Your task to perform on an android device: show emergency info Image 0: 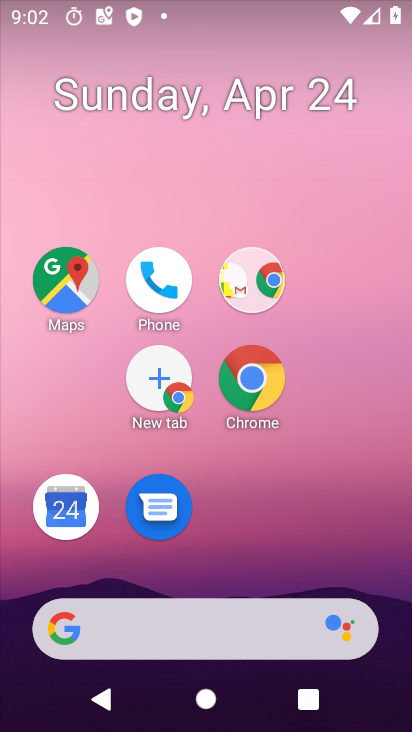
Step 0: drag from (267, 690) to (146, 48)
Your task to perform on an android device: show emergency info Image 1: 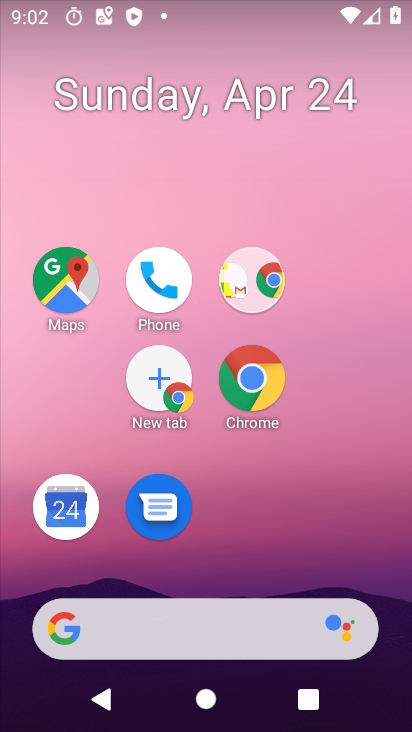
Step 1: drag from (246, 470) to (141, 90)
Your task to perform on an android device: show emergency info Image 2: 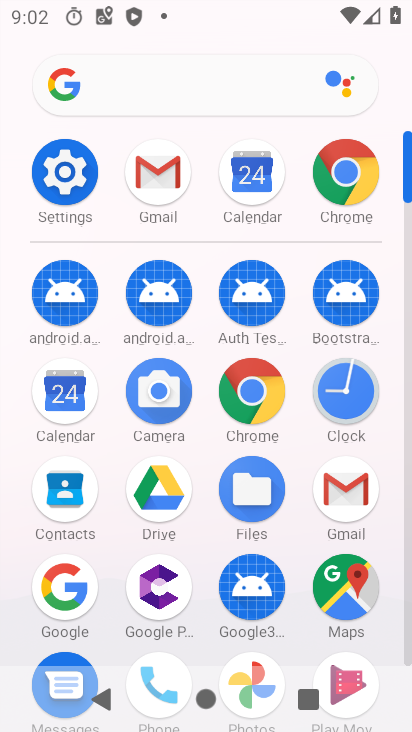
Step 2: click (58, 171)
Your task to perform on an android device: show emergency info Image 3: 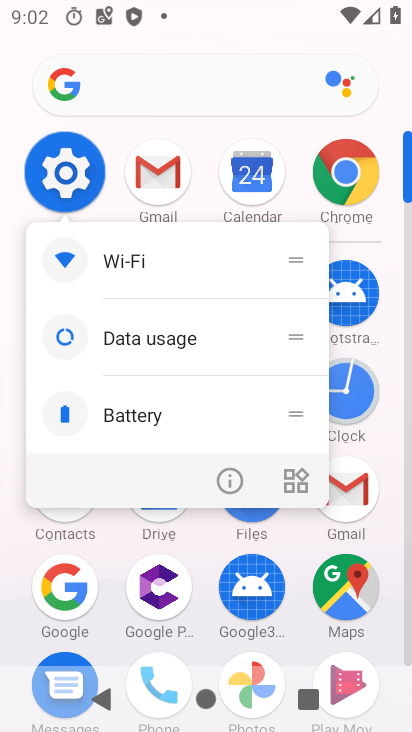
Step 3: click (61, 172)
Your task to perform on an android device: show emergency info Image 4: 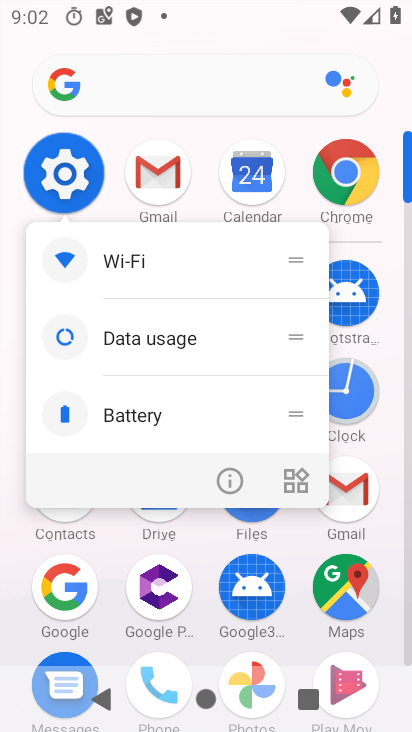
Step 4: click (60, 173)
Your task to perform on an android device: show emergency info Image 5: 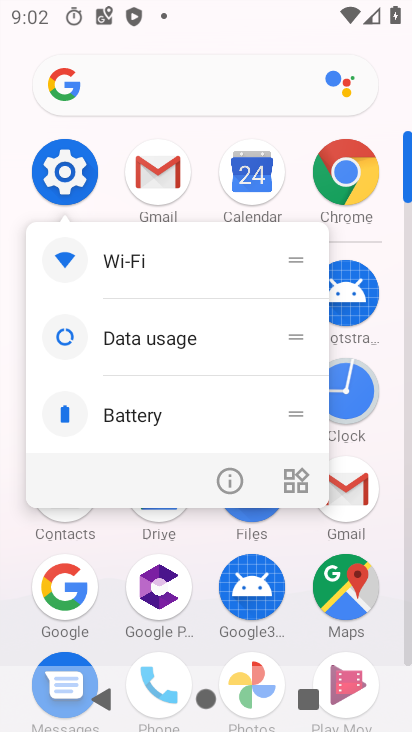
Step 5: click (62, 178)
Your task to perform on an android device: show emergency info Image 6: 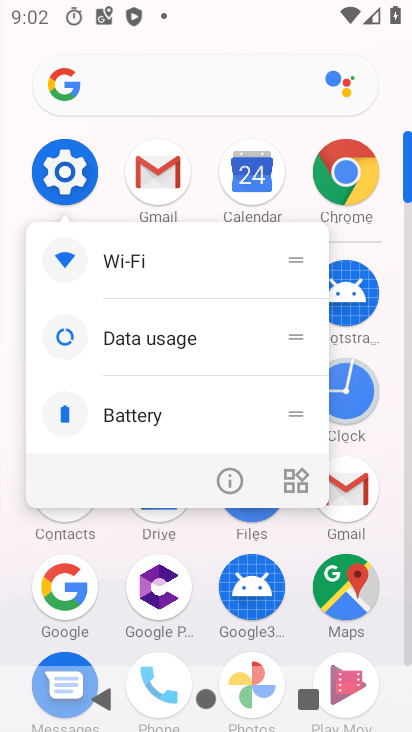
Step 6: click (62, 180)
Your task to perform on an android device: show emergency info Image 7: 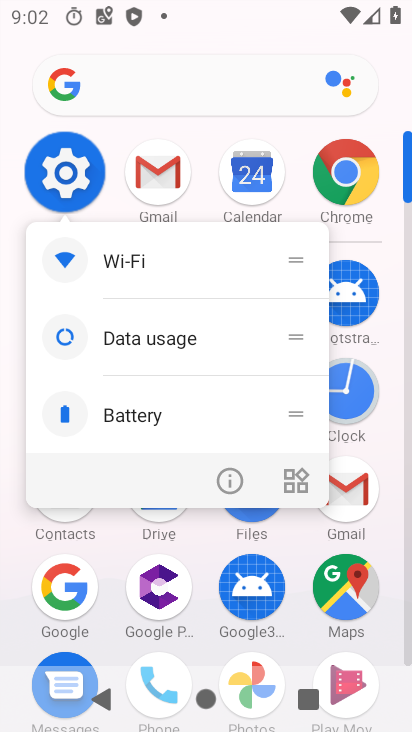
Step 7: click (62, 181)
Your task to perform on an android device: show emergency info Image 8: 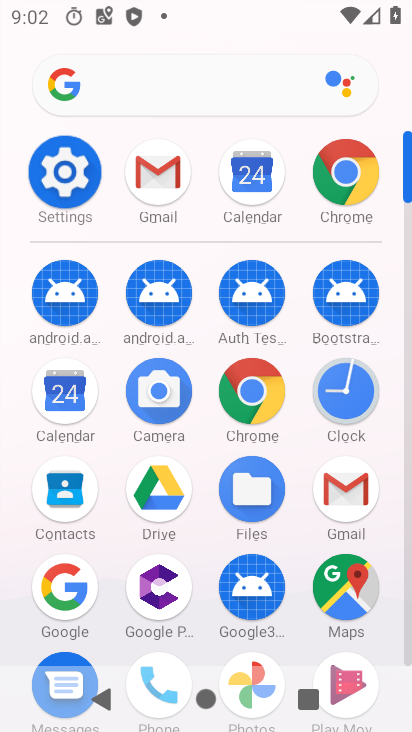
Step 8: click (62, 182)
Your task to perform on an android device: show emergency info Image 9: 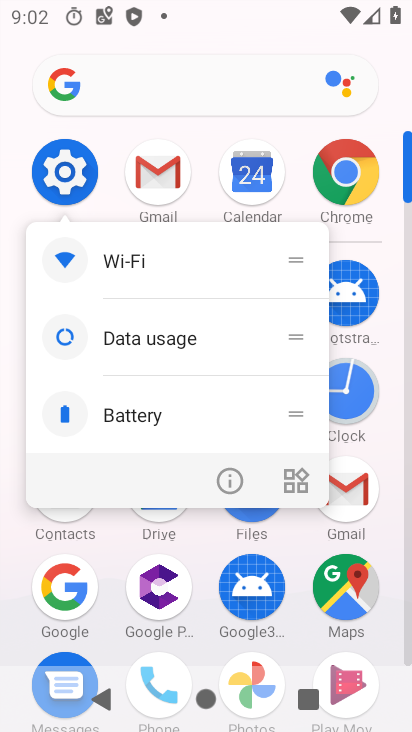
Step 9: click (62, 183)
Your task to perform on an android device: show emergency info Image 10: 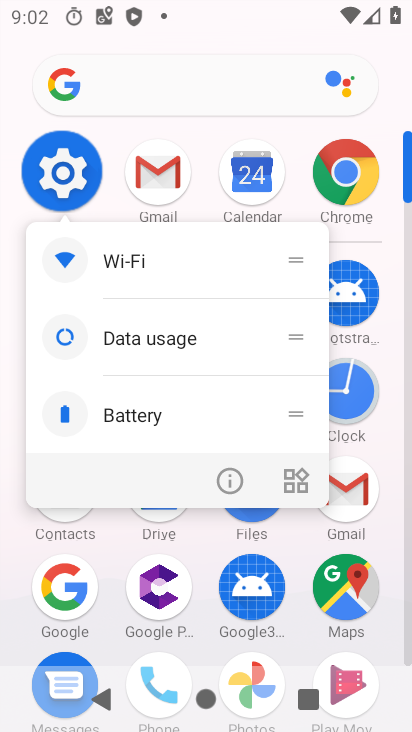
Step 10: click (59, 181)
Your task to perform on an android device: show emergency info Image 11: 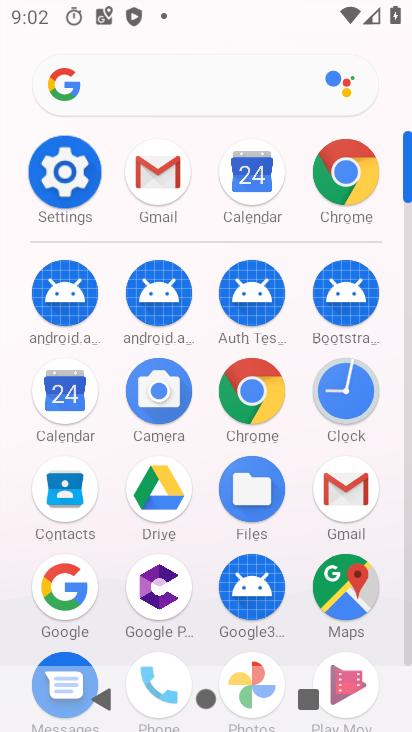
Step 11: click (58, 180)
Your task to perform on an android device: show emergency info Image 12: 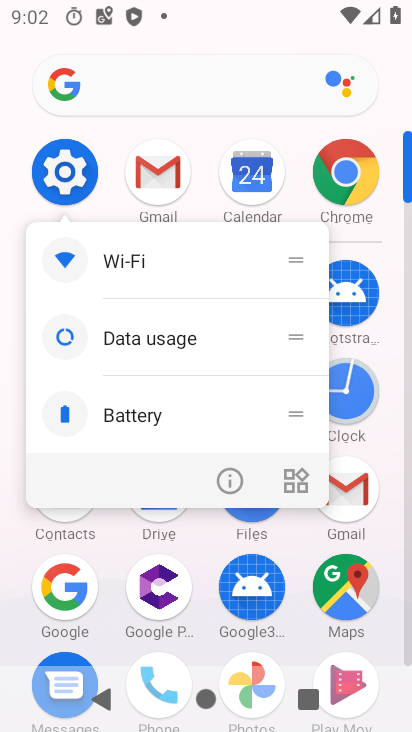
Step 12: click (54, 187)
Your task to perform on an android device: show emergency info Image 13: 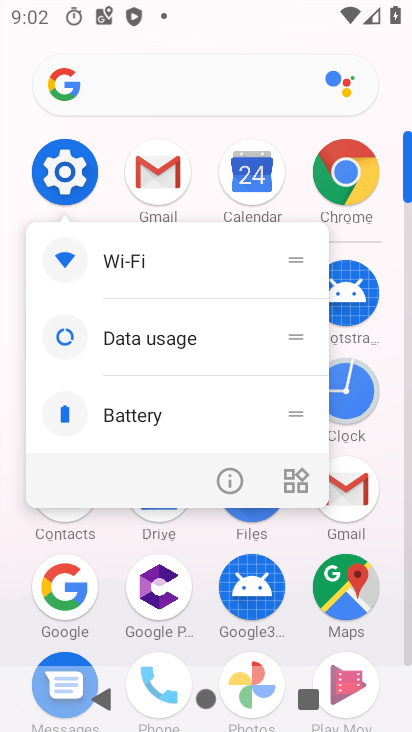
Step 13: click (72, 176)
Your task to perform on an android device: show emergency info Image 14: 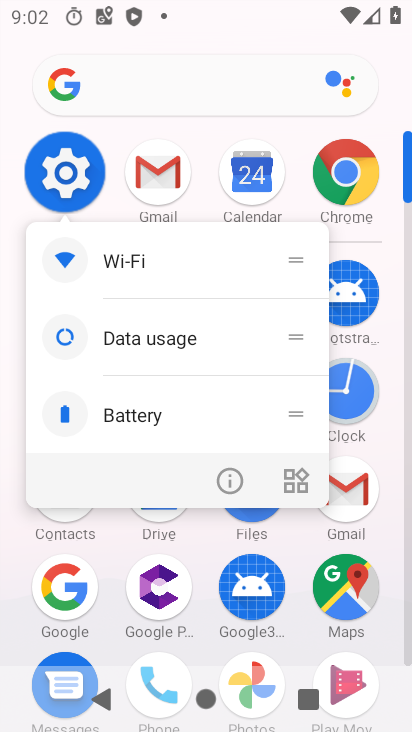
Step 14: click (73, 175)
Your task to perform on an android device: show emergency info Image 15: 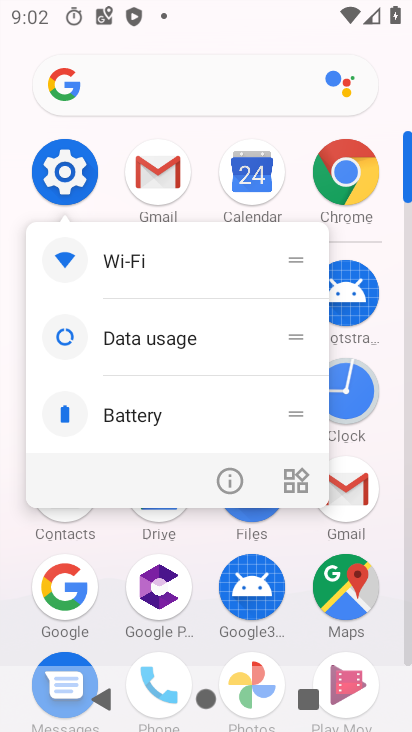
Step 15: click (72, 175)
Your task to perform on an android device: show emergency info Image 16: 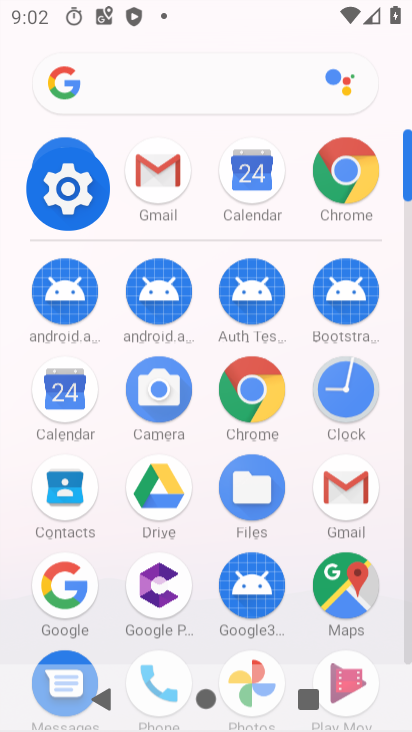
Step 16: click (72, 175)
Your task to perform on an android device: show emergency info Image 17: 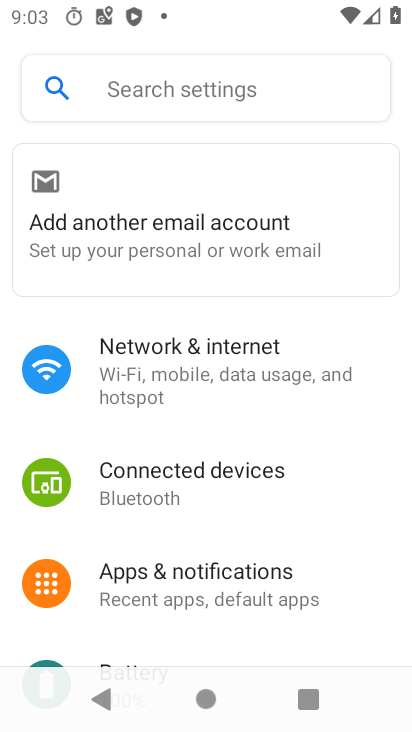
Step 17: drag from (230, 484) to (214, 211)
Your task to perform on an android device: show emergency info Image 18: 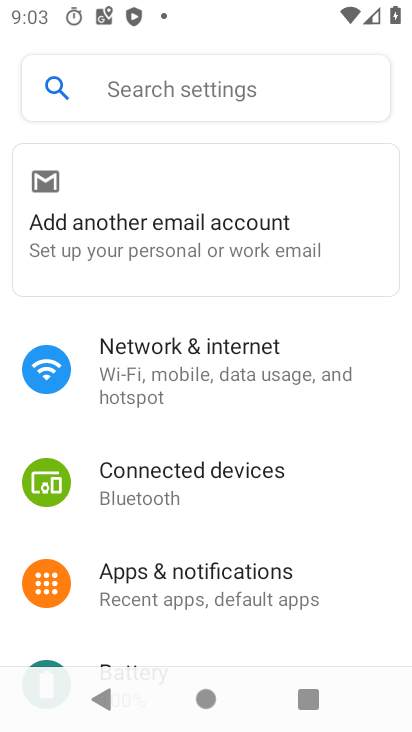
Step 18: drag from (171, 533) to (143, 155)
Your task to perform on an android device: show emergency info Image 19: 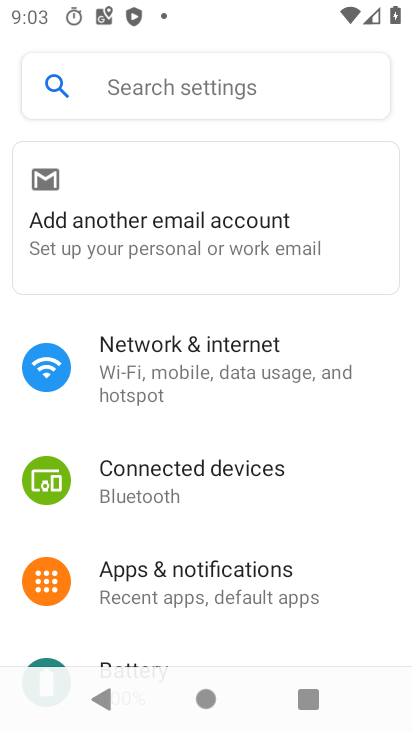
Step 19: drag from (210, 303) to (179, 172)
Your task to perform on an android device: show emergency info Image 20: 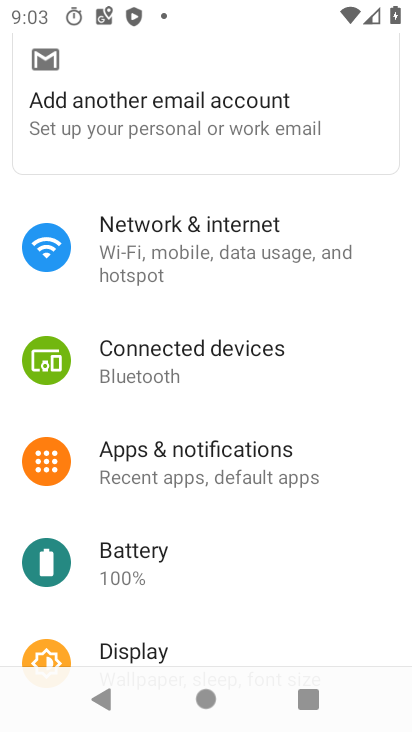
Step 20: drag from (184, 426) to (149, 97)
Your task to perform on an android device: show emergency info Image 21: 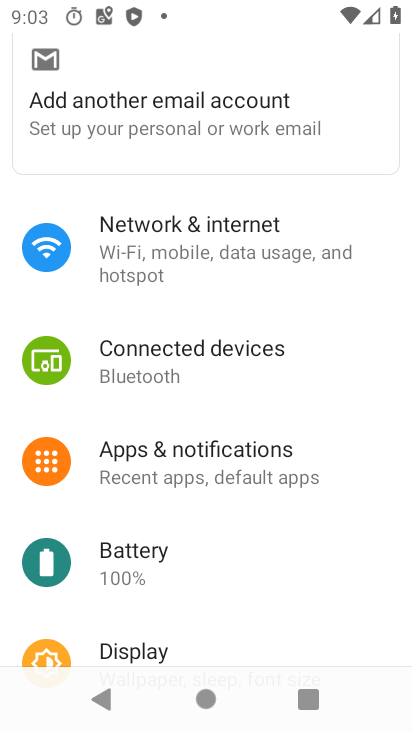
Step 21: drag from (192, 421) to (170, 140)
Your task to perform on an android device: show emergency info Image 22: 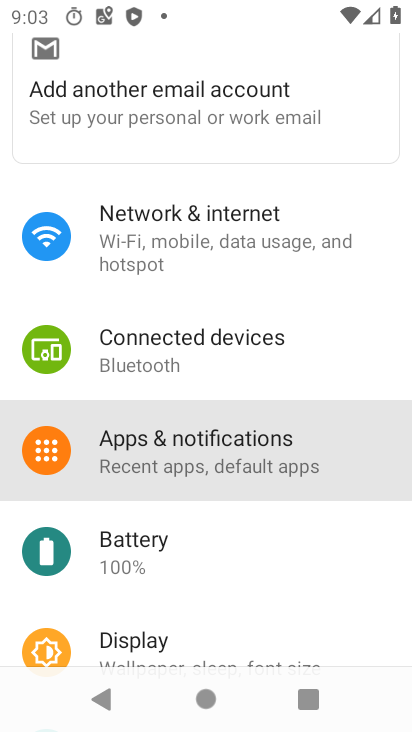
Step 22: drag from (184, 436) to (165, 127)
Your task to perform on an android device: show emergency info Image 23: 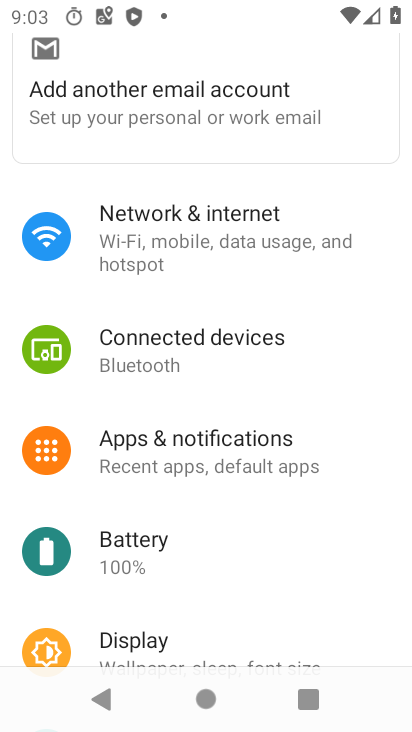
Step 23: drag from (209, 384) to (157, 110)
Your task to perform on an android device: show emergency info Image 24: 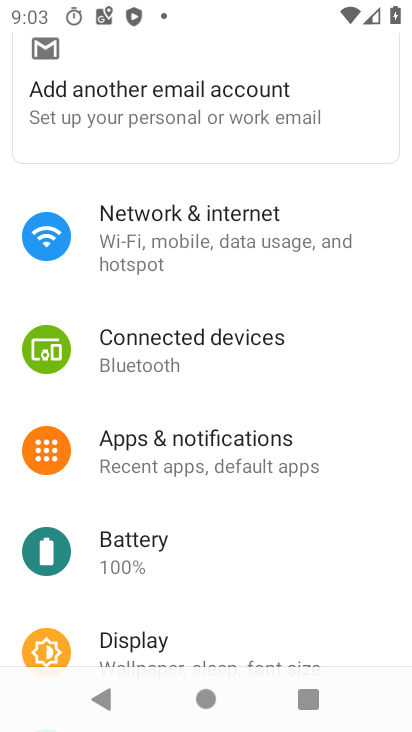
Step 24: drag from (210, 472) to (124, 11)
Your task to perform on an android device: show emergency info Image 25: 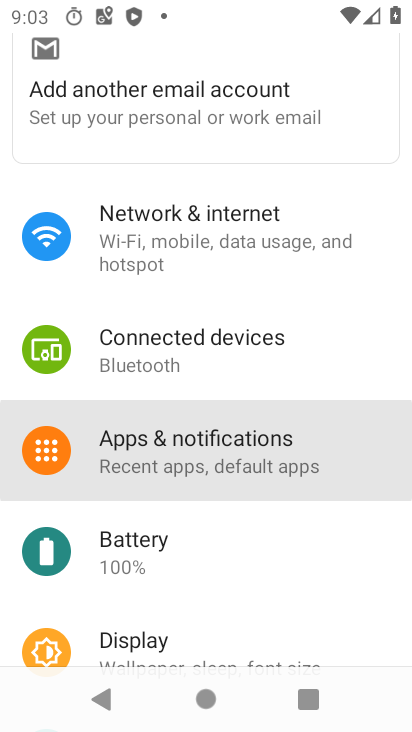
Step 25: drag from (123, 390) to (44, 2)
Your task to perform on an android device: show emergency info Image 26: 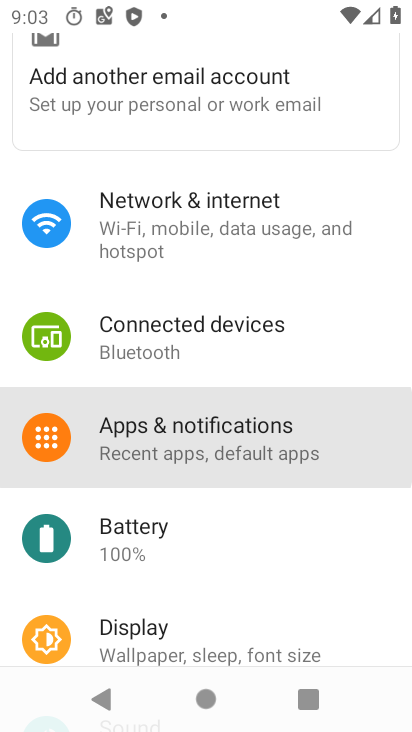
Step 26: drag from (177, 409) to (141, 6)
Your task to perform on an android device: show emergency info Image 27: 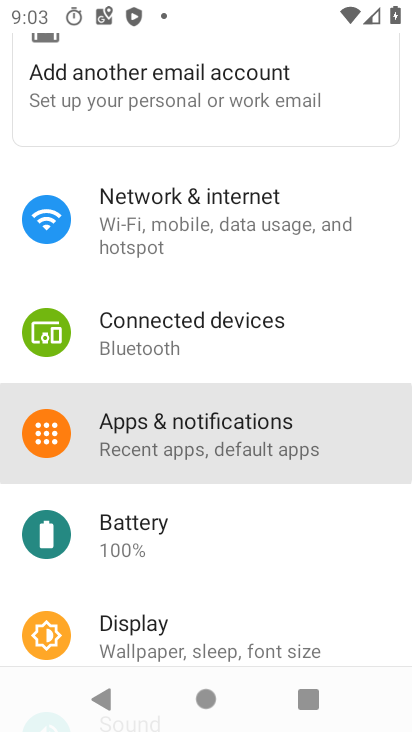
Step 27: drag from (210, 439) to (135, 18)
Your task to perform on an android device: show emergency info Image 28: 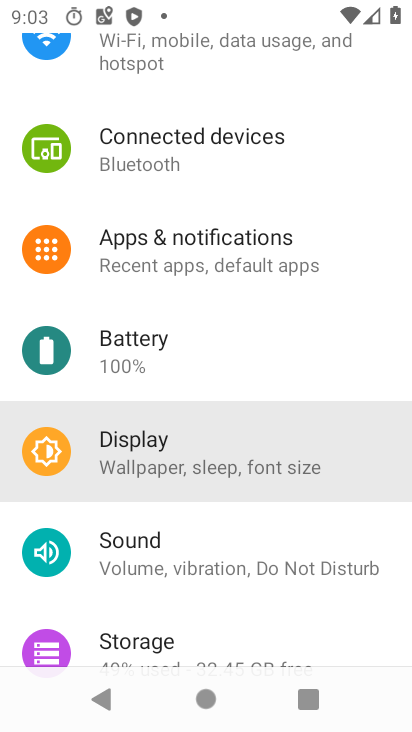
Step 28: drag from (216, 567) to (170, 74)
Your task to perform on an android device: show emergency info Image 29: 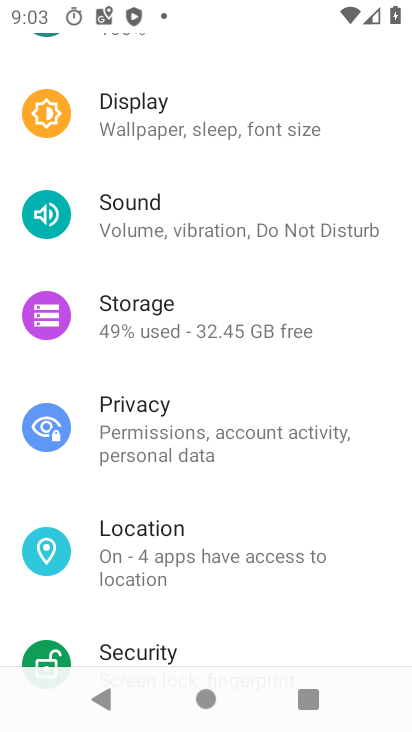
Step 29: drag from (168, 499) to (130, 64)
Your task to perform on an android device: show emergency info Image 30: 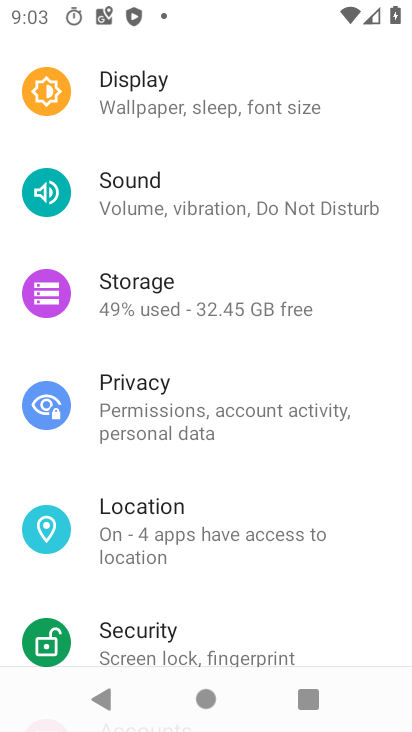
Step 30: drag from (191, 482) to (253, 29)
Your task to perform on an android device: show emergency info Image 31: 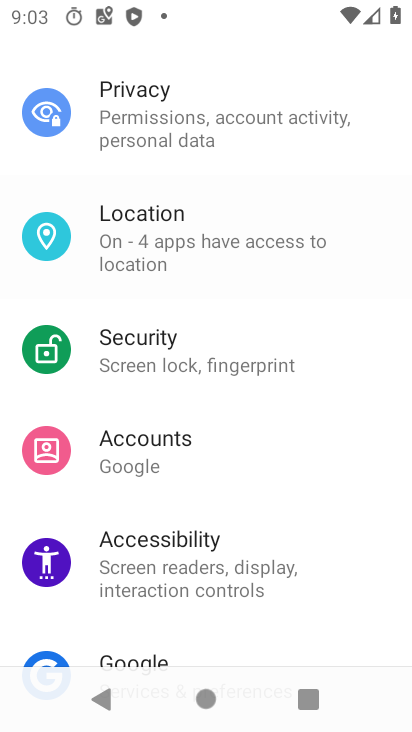
Step 31: drag from (187, 434) to (184, 20)
Your task to perform on an android device: show emergency info Image 32: 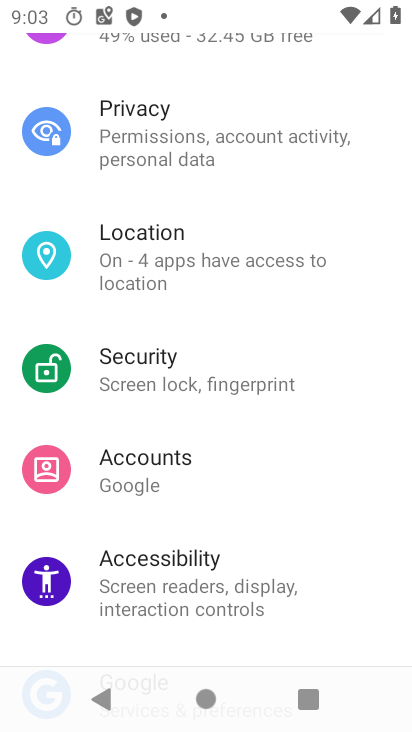
Step 32: drag from (195, 528) to (162, 21)
Your task to perform on an android device: show emergency info Image 33: 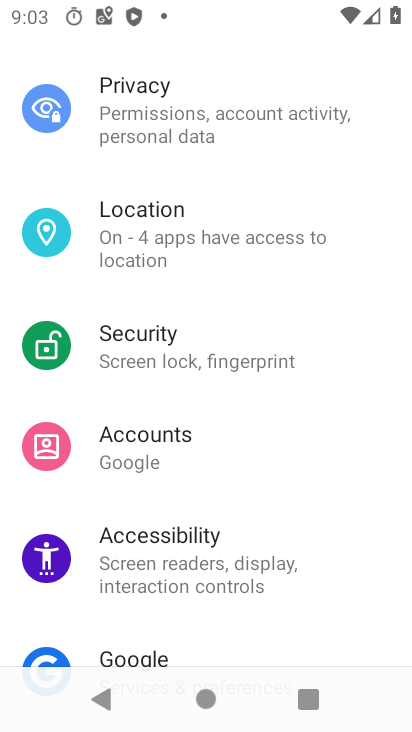
Step 33: drag from (254, 440) to (189, 60)
Your task to perform on an android device: show emergency info Image 34: 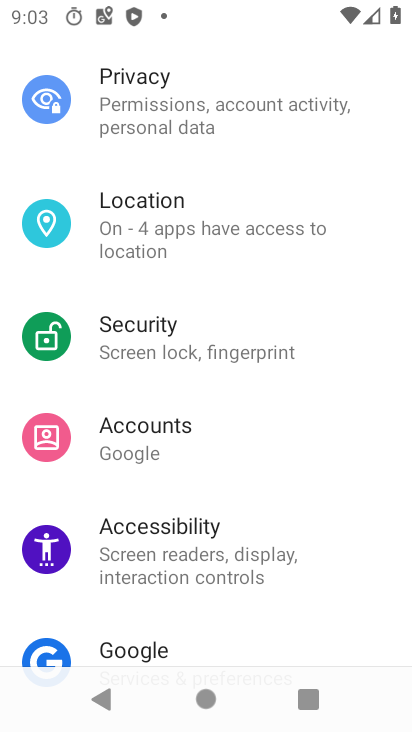
Step 34: drag from (242, 556) to (205, 4)
Your task to perform on an android device: show emergency info Image 35: 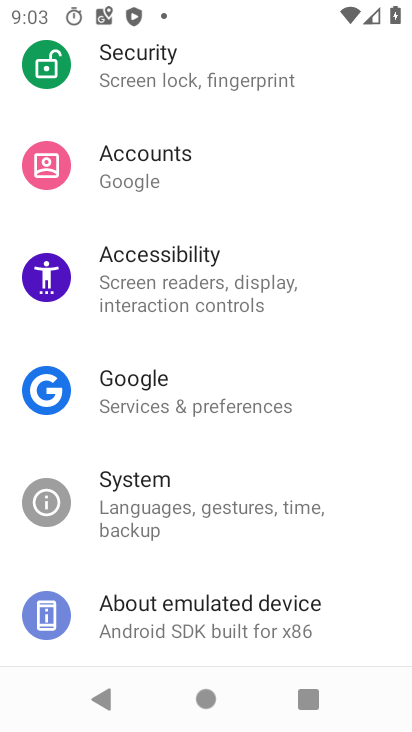
Step 35: drag from (213, 372) to (185, 6)
Your task to perform on an android device: show emergency info Image 36: 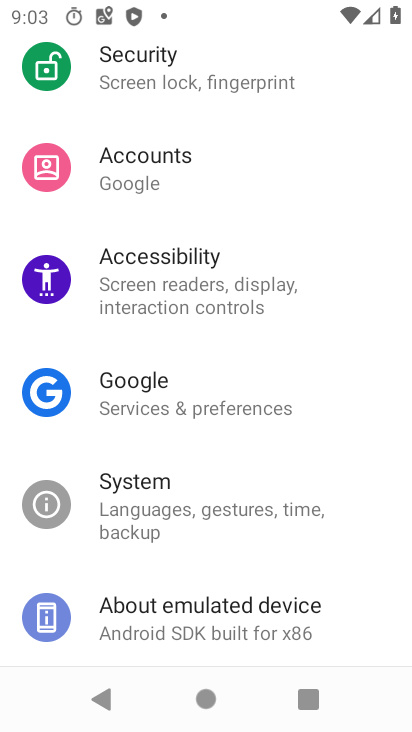
Step 36: click (184, 606)
Your task to perform on an android device: show emergency info Image 37: 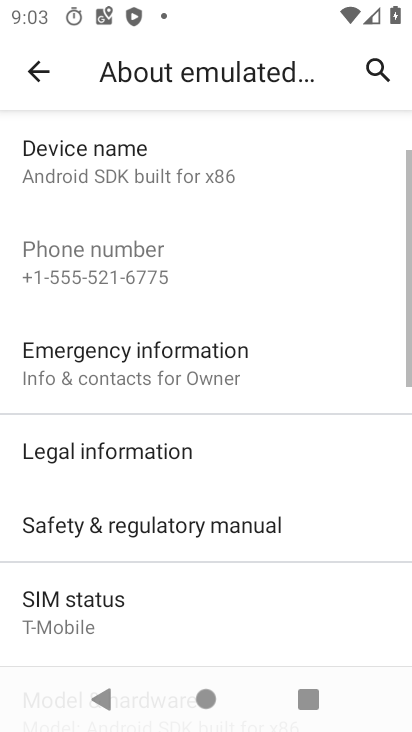
Step 37: click (154, 38)
Your task to perform on an android device: show emergency info Image 38: 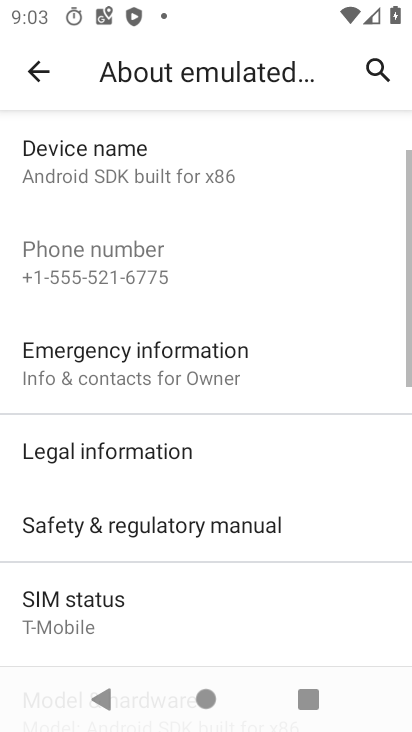
Step 38: task complete